Your task to perform on an android device: Go to CNN.com Image 0: 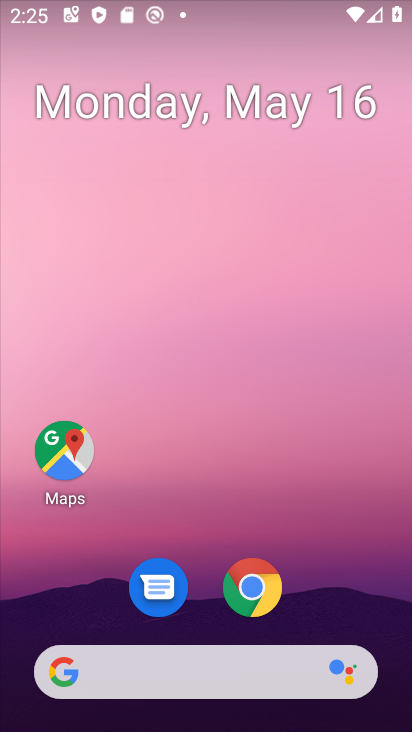
Step 0: drag from (385, 659) to (295, 329)
Your task to perform on an android device: Go to CNN.com Image 1: 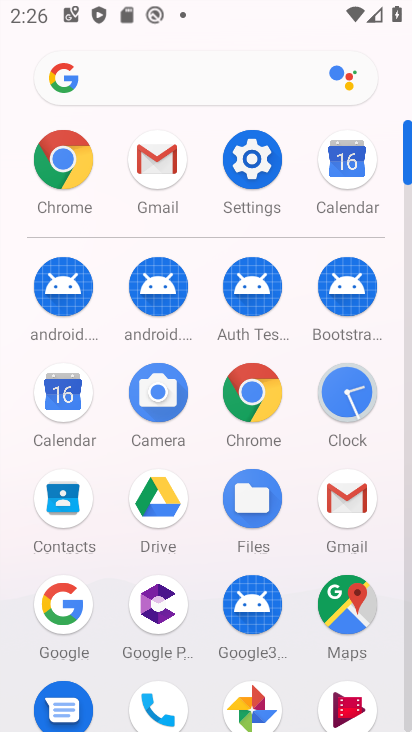
Step 1: click (44, 165)
Your task to perform on an android device: Go to CNN.com Image 2: 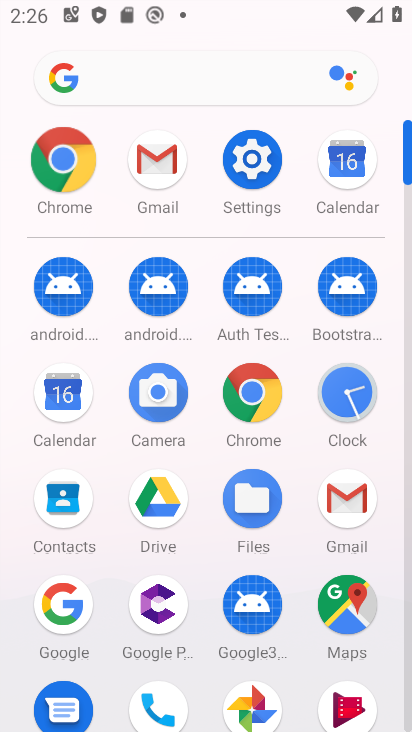
Step 2: click (44, 165)
Your task to perform on an android device: Go to CNN.com Image 3: 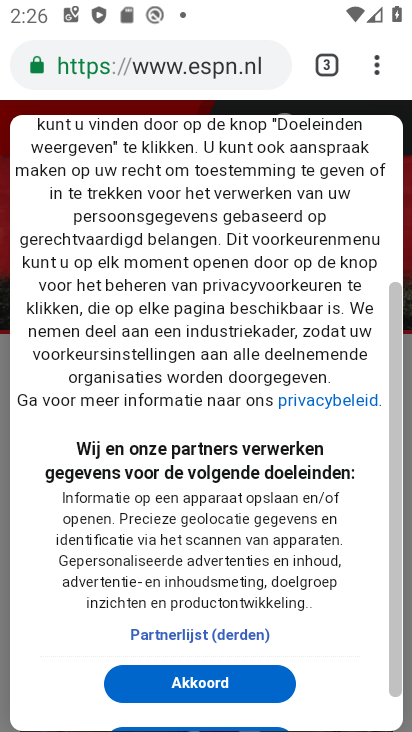
Step 3: click (212, 705)
Your task to perform on an android device: Go to CNN.com Image 4: 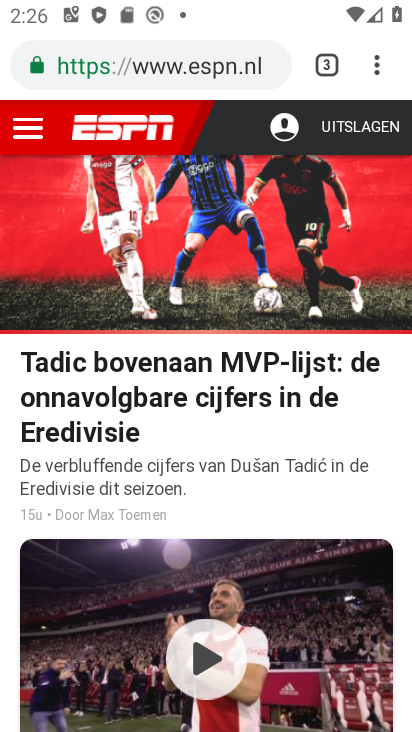
Step 4: drag from (380, 61) to (144, 129)
Your task to perform on an android device: Go to CNN.com Image 5: 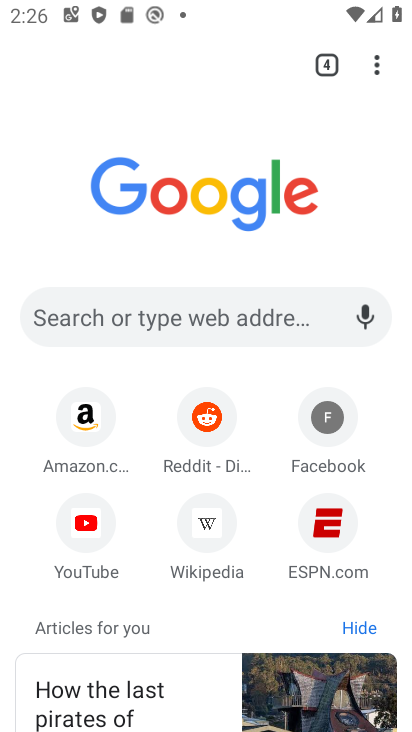
Step 5: click (379, 70)
Your task to perform on an android device: Go to CNN.com Image 6: 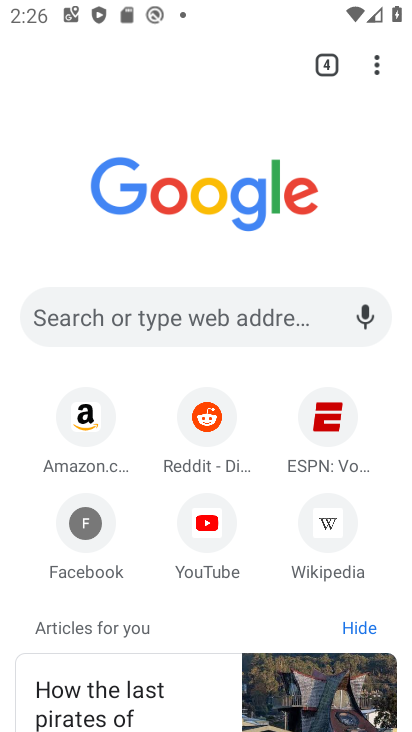
Step 6: click (95, 294)
Your task to perform on an android device: Go to CNN.com Image 7: 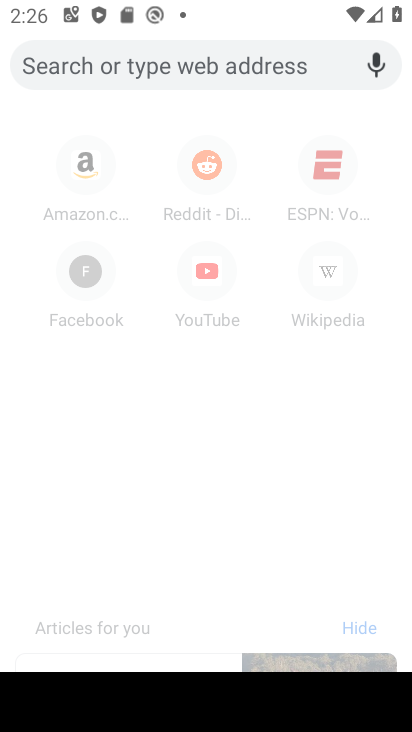
Step 7: type "cnn.com"
Your task to perform on an android device: Go to CNN.com Image 8: 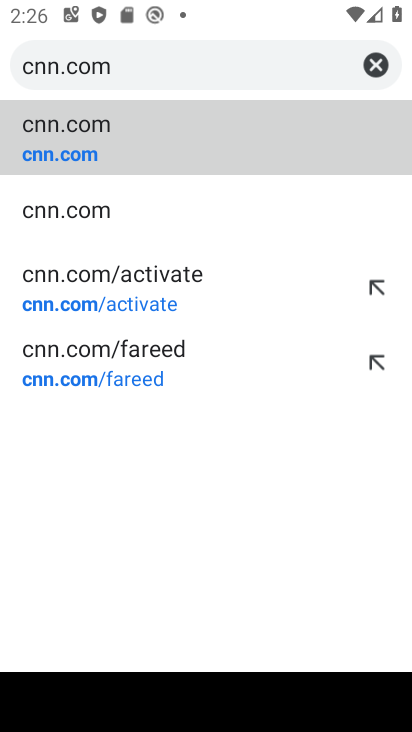
Step 8: click (57, 142)
Your task to perform on an android device: Go to CNN.com Image 9: 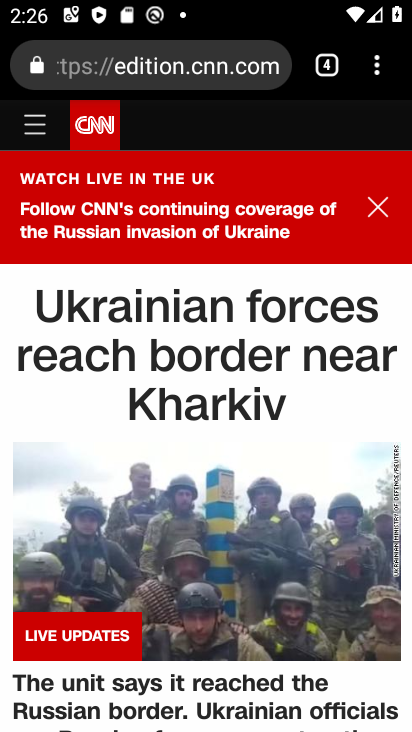
Step 9: task complete